Your task to perform on an android device: add a label to a message in the gmail app Image 0: 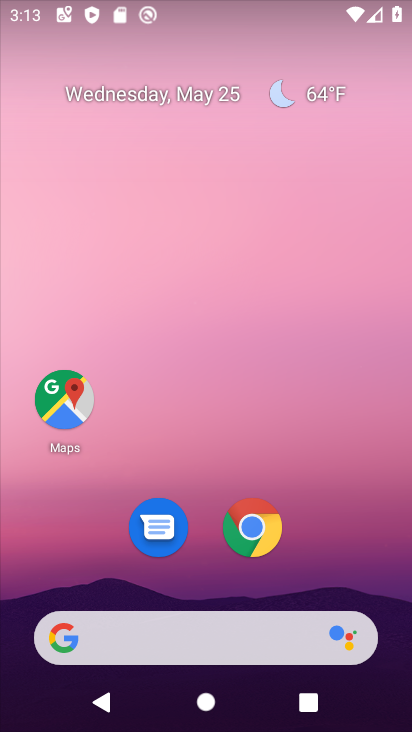
Step 0: drag from (243, 543) to (315, 97)
Your task to perform on an android device: add a label to a message in the gmail app Image 1: 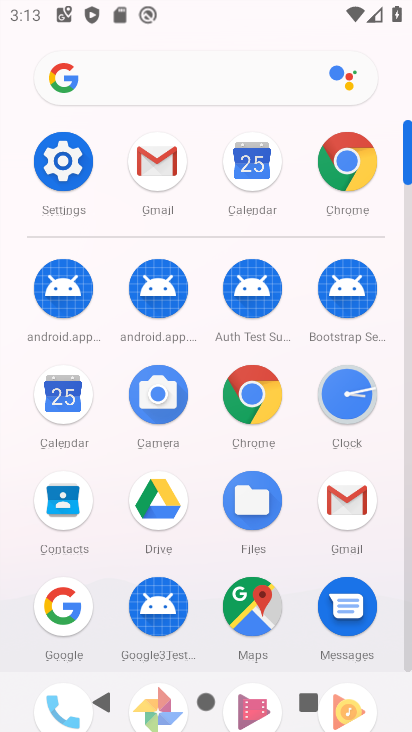
Step 1: click (162, 159)
Your task to perform on an android device: add a label to a message in the gmail app Image 2: 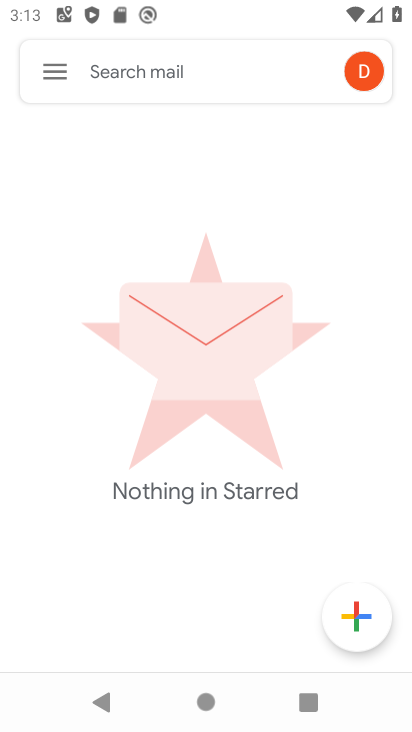
Step 2: click (56, 68)
Your task to perform on an android device: add a label to a message in the gmail app Image 3: 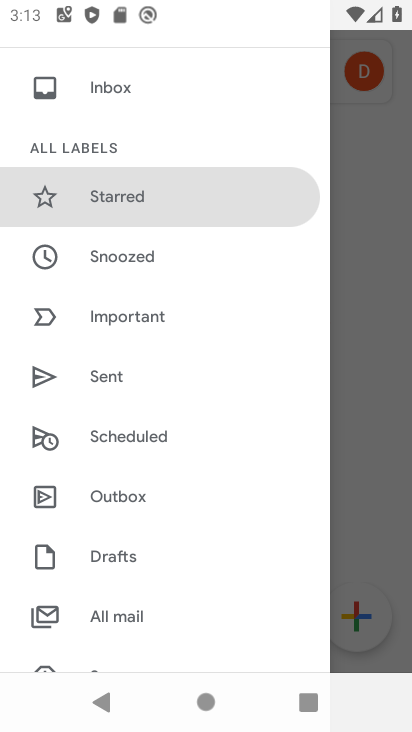
Step 3: click (190, 614)
Your task to perform on an android device: add a label to a message in the gmail app Image 4: 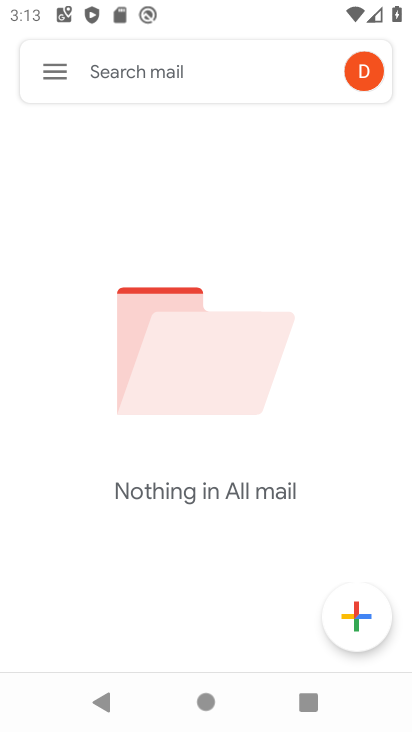
Step 4: task complete